Your task to perform on an android device: see creations saved in the google photos Image 0: 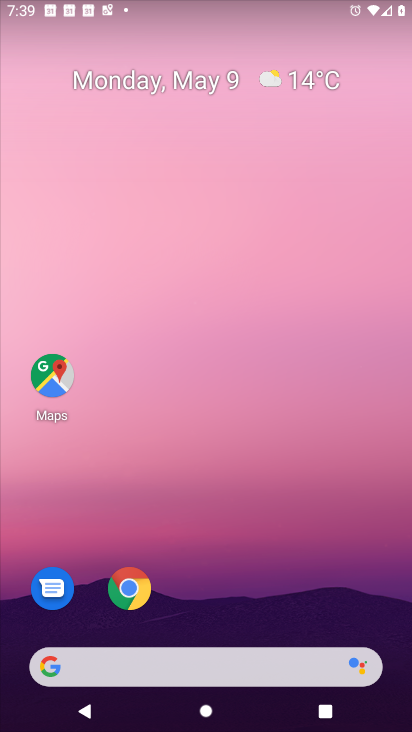
Step 0: drag from (290, 633) to (293, 3)
Your task to perform on an android device: see creations saved in the google photos Image 1: 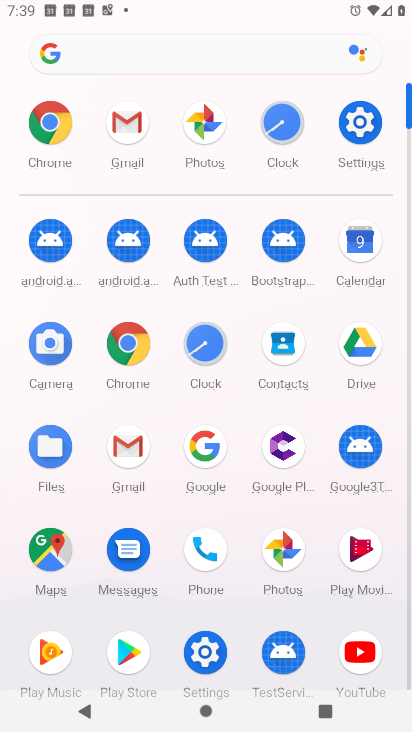
Step 1: click (269, 561)
Your task to perform on an android device: see creations saved in the google photos Image 2: 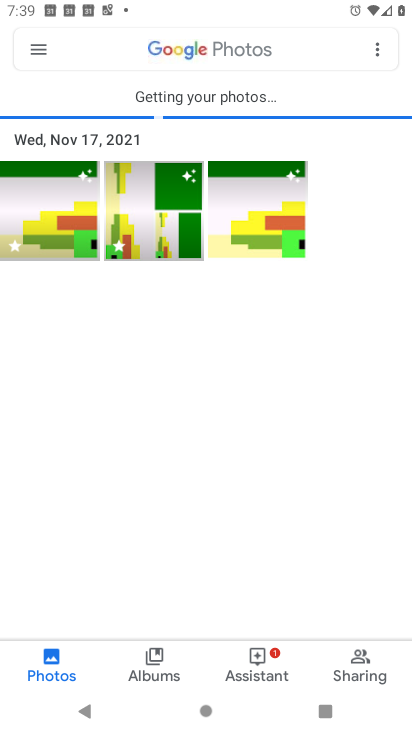
Step 2: click (201, 52)
Your task to perform on an android device: see creations saved in the google photos Image 3: 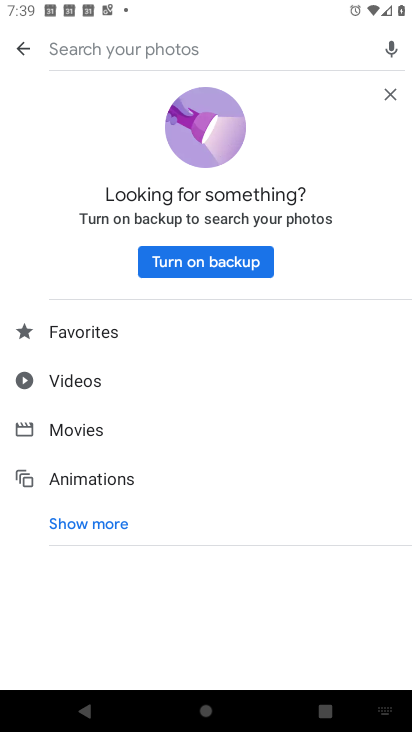
Step 3: click (77, 511)
Your task to perform on an android device: see creations saved in the google photos Image 4: 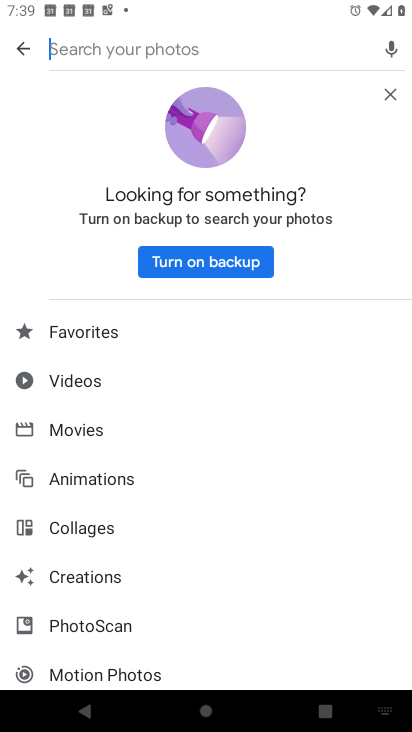
Step 4: click (85, 576)
Your task to perform on an android device: see creations saved in the google photos Image 5: 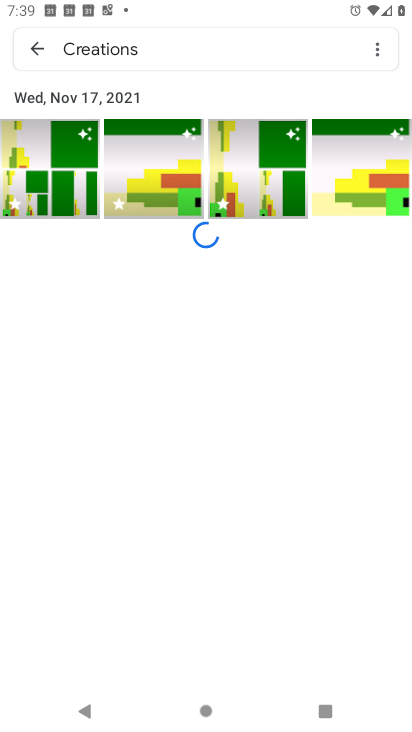
Step 5: task complete